Your task to perform on an android device: check data usage Image 0: 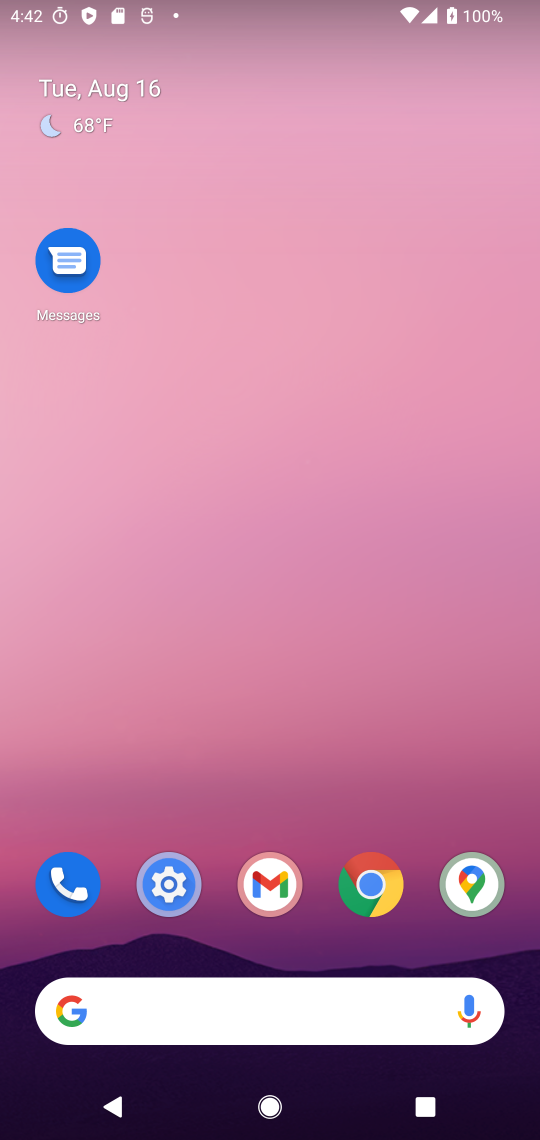
Step 0: click (147, 893)
Your task to perform on an android device: check data usage Image 1: 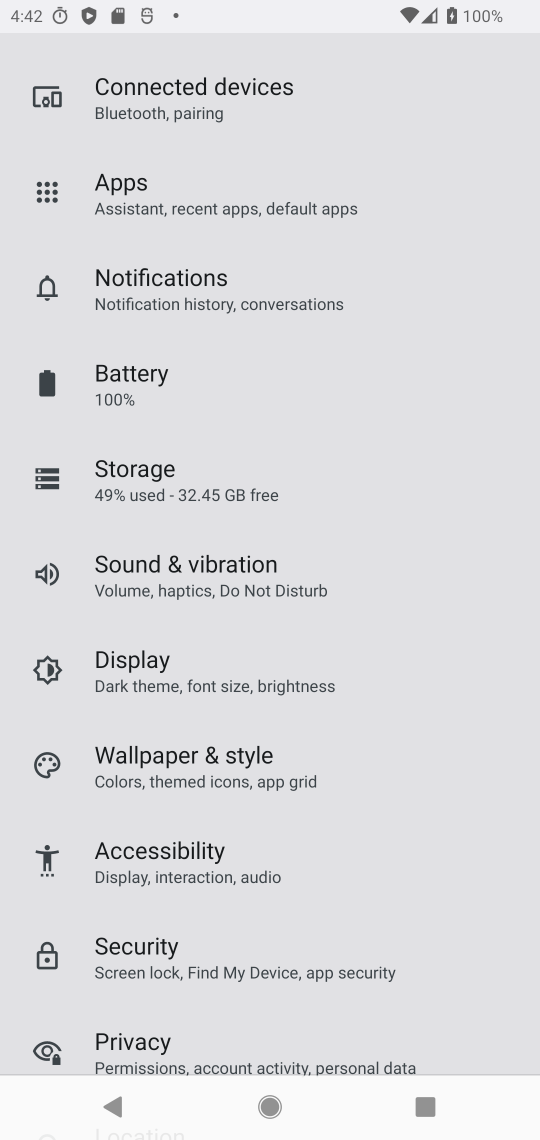
Step 1: drag from (422, 74) to (457, 841)
Your task to perform on an android device: check data usage Image 2: 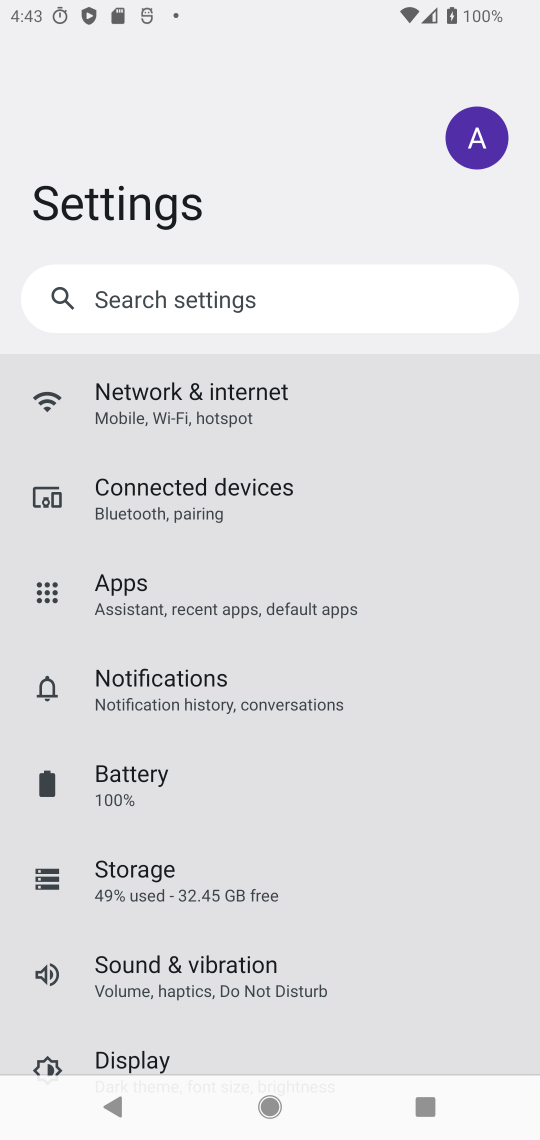
Step 2: click (207, 394)
Your task to perform on an android device: check data usage Image 3: 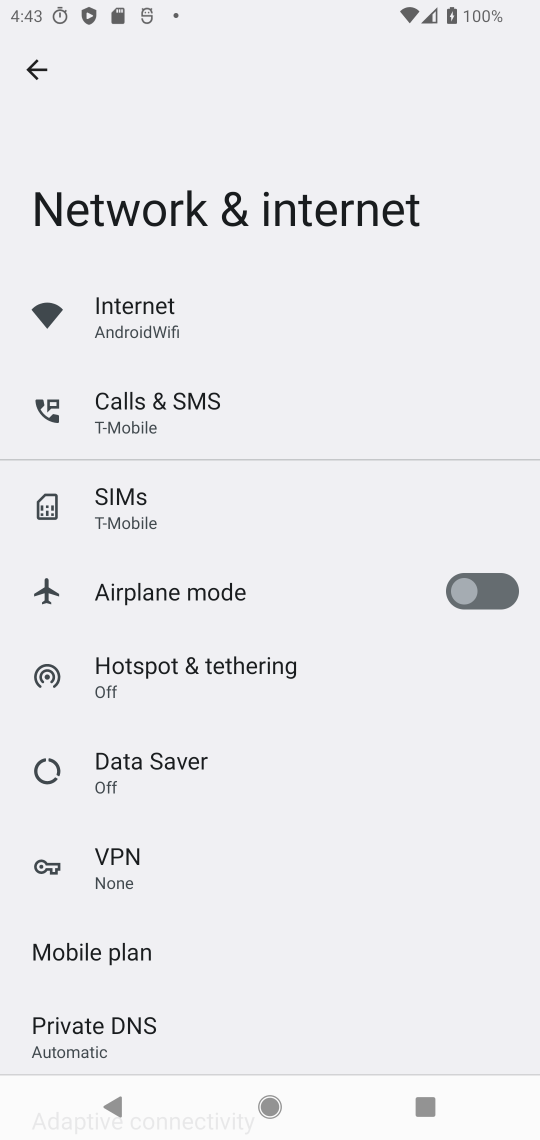
Step 3: click (177, 305)
Your task to perform on an android device: check data usage Image 4: 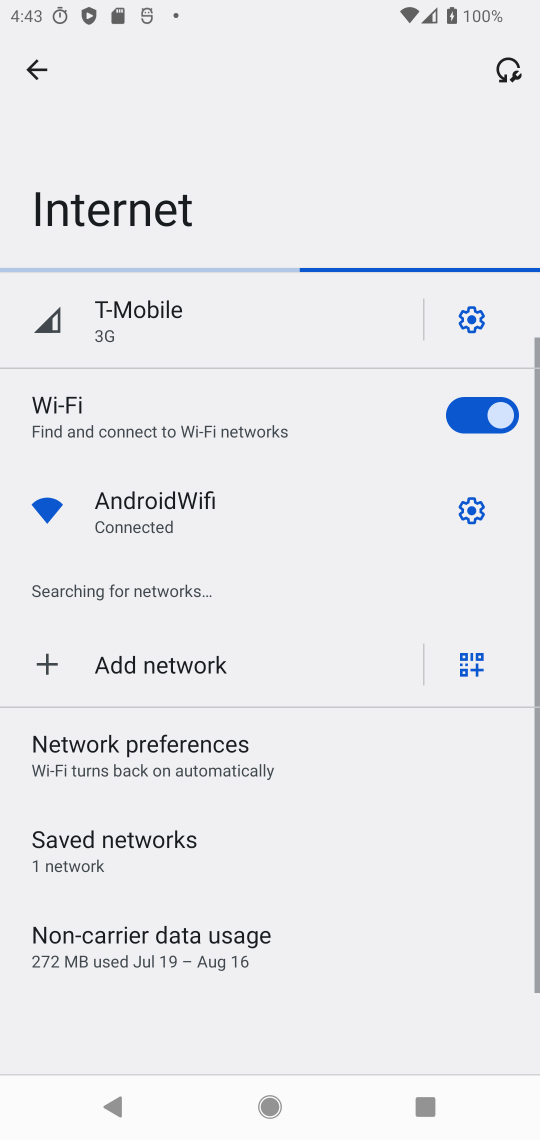
Step 4: click (161, 951)
Your task to perform on an android device: check data usage Image 5: 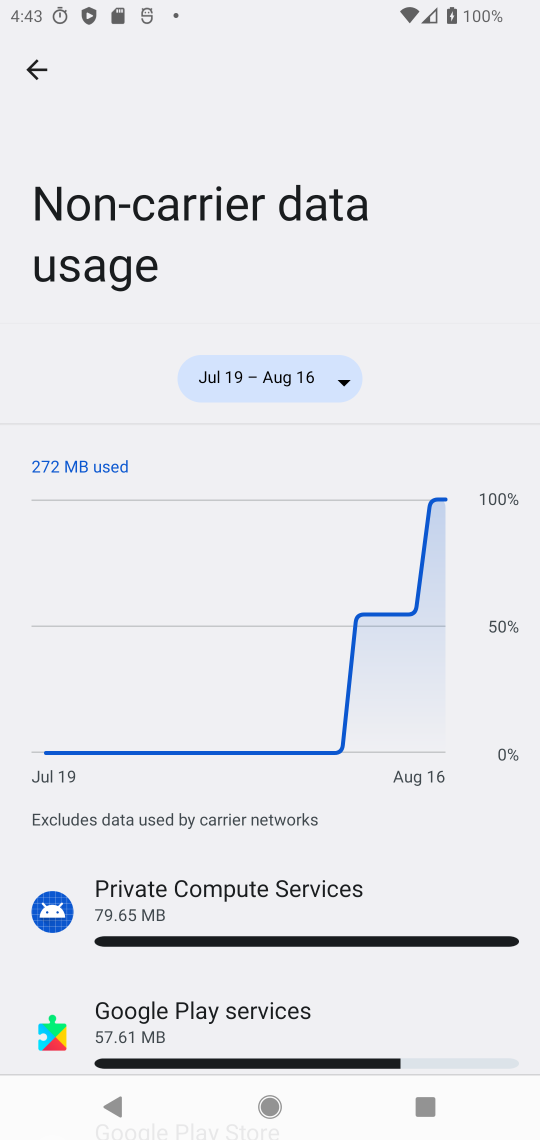
Step 5: task complete